Your task to perform on an android device: Search for sushi restaurants on Maps Image 0: 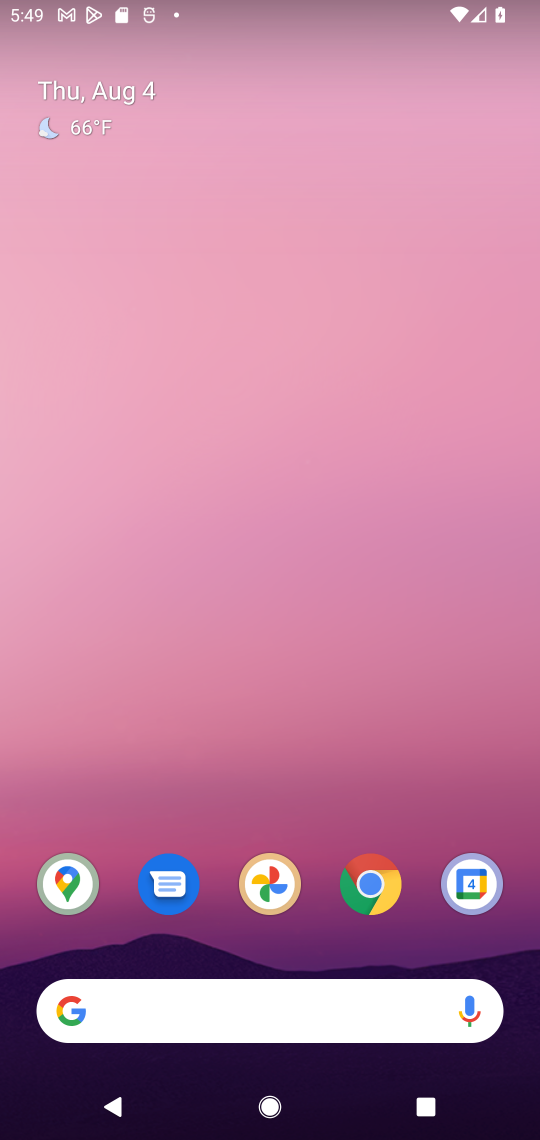
Step 0: click (80, 903)
Your task to perform on an android device: Search for sushi restaurants on Maps Image 1: 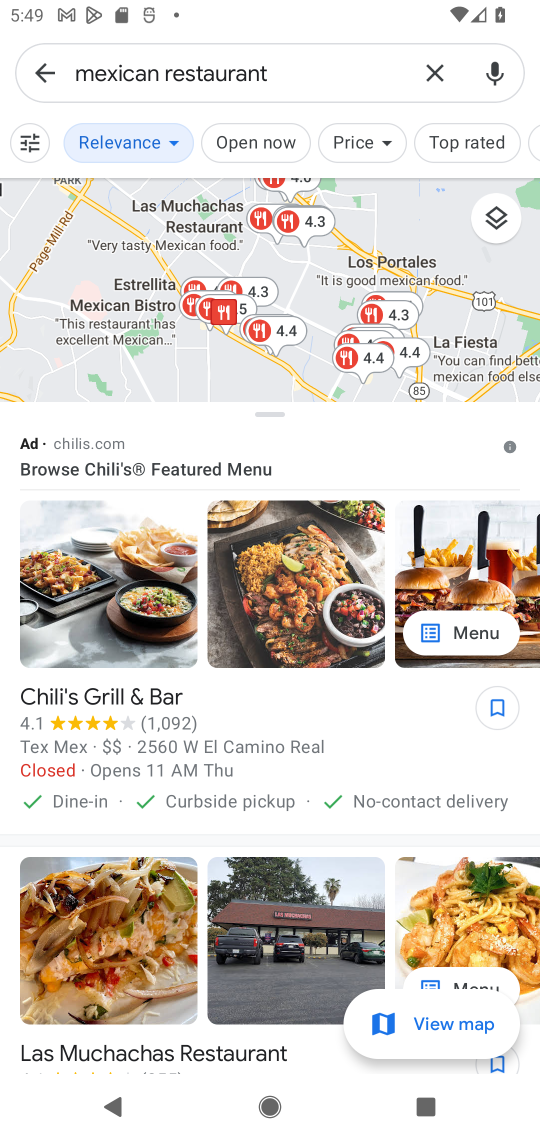
Step 1: click (446, 59)
Your task to perform on an android device: Search for sushi restaurants on Maps Image 2: 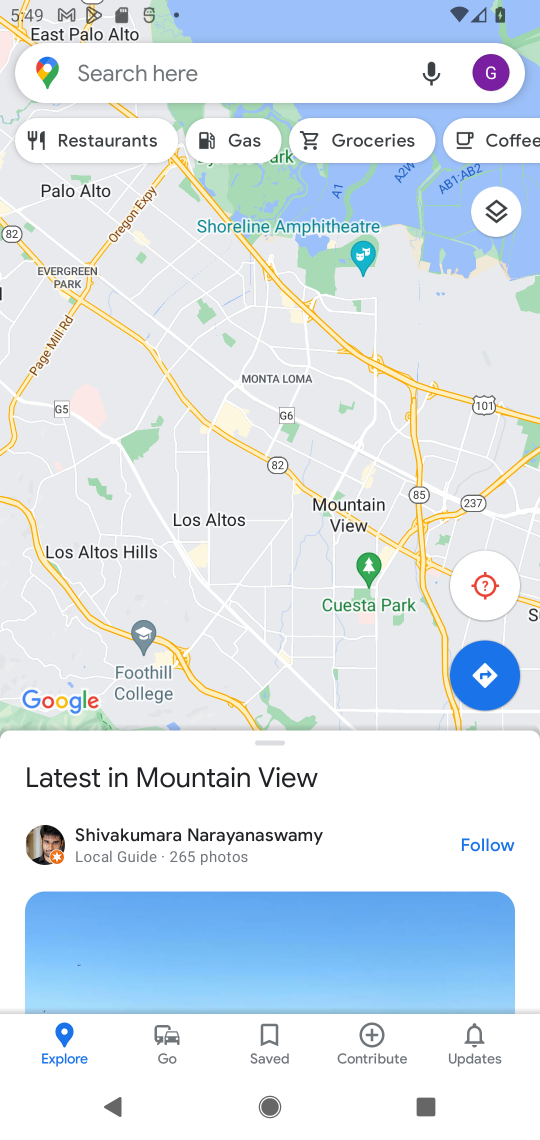
Step 2: click (294, 73)
Your task to perform on an android device: Search for sushi restaurants on Maps Image 3: 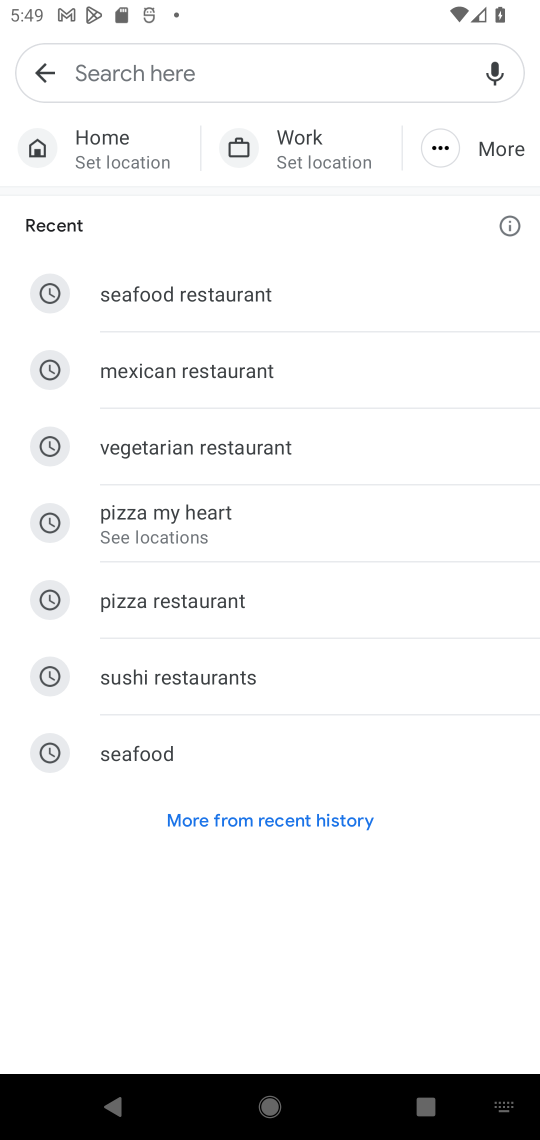
Step 3: click (296, 695)
Your task to perform on an android device: Search for sushi restaurants on Maps Image 4: 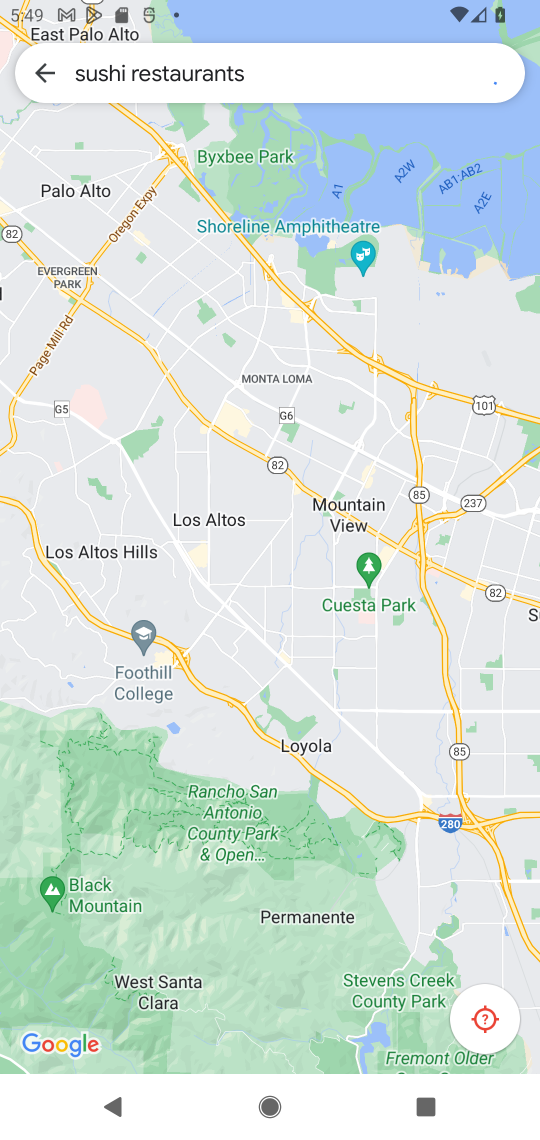
Step 4: task complete